Your task to perform on an android device: find snoozed emails in the gmail app Image 0: 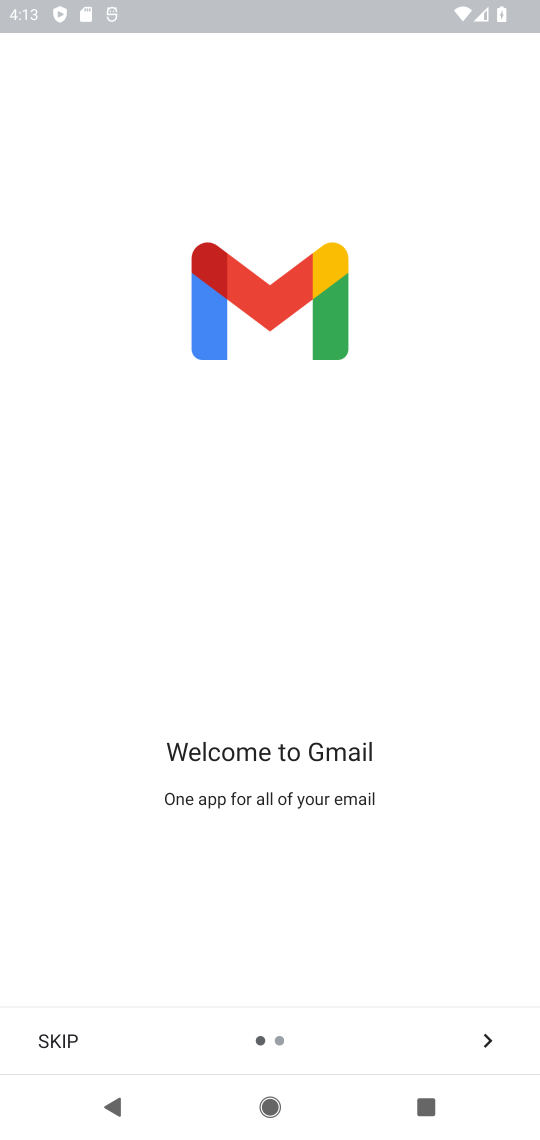
Step 0: click (59, 1028)
Your task to perform on an android device: find snoozed emails in the gmail app Image 1: 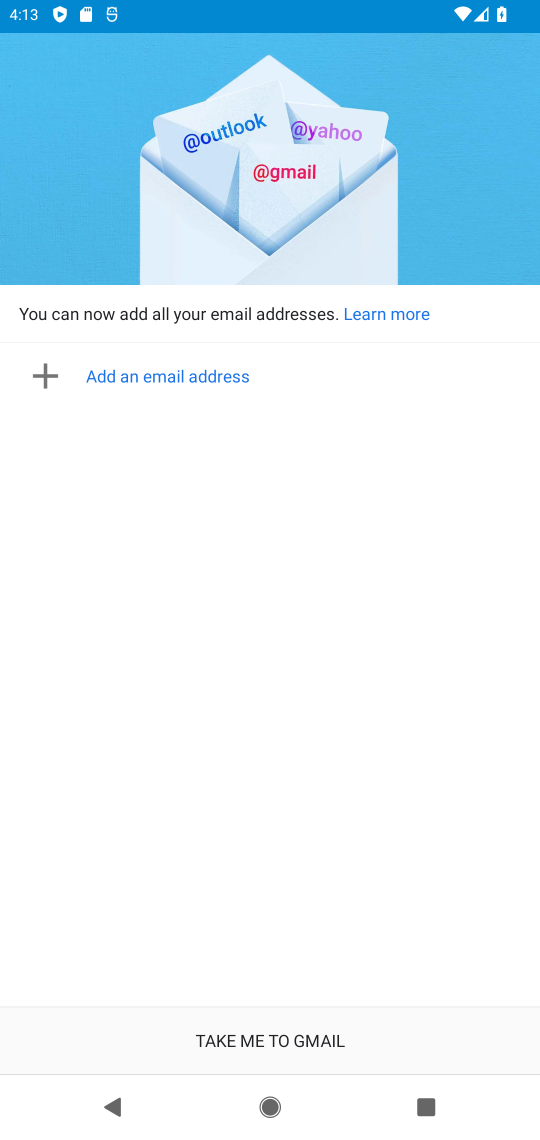
Step 1: task complete